Your task to perform on an android device: turn off wifi Image 0: 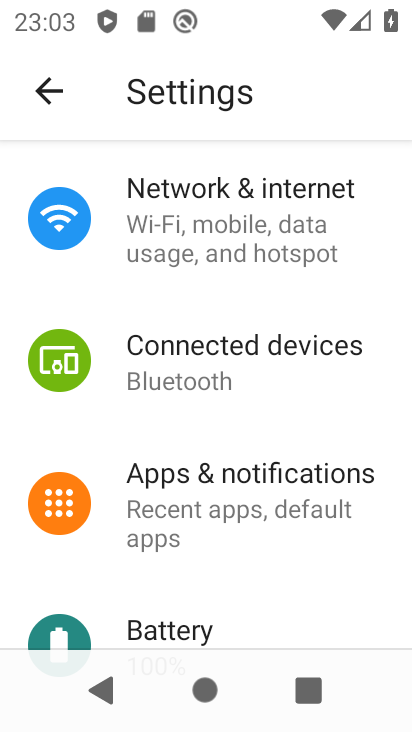
Step 0: click (220, 204)
Your task to perform on an android device: turn off wifi Image 1: 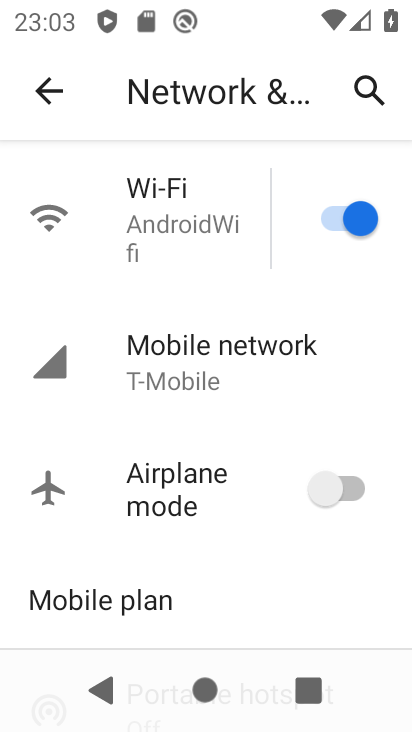
Step 1: click (328, 214)
Your task to perform on an android device: turn off wifi Image 2: 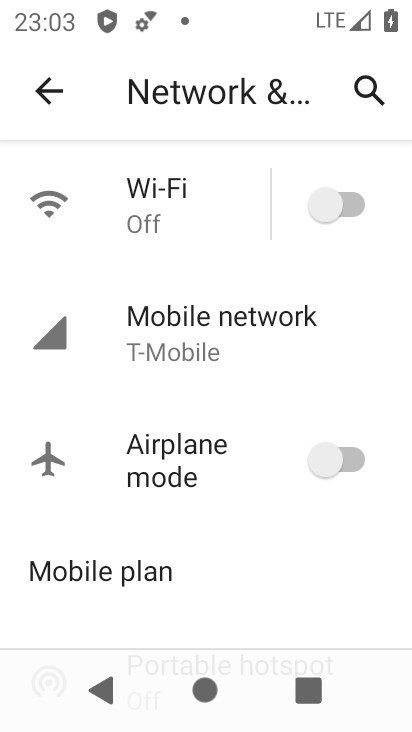
Step 2: task complete